Your task to perform on an android device: turn off location history Image 0: 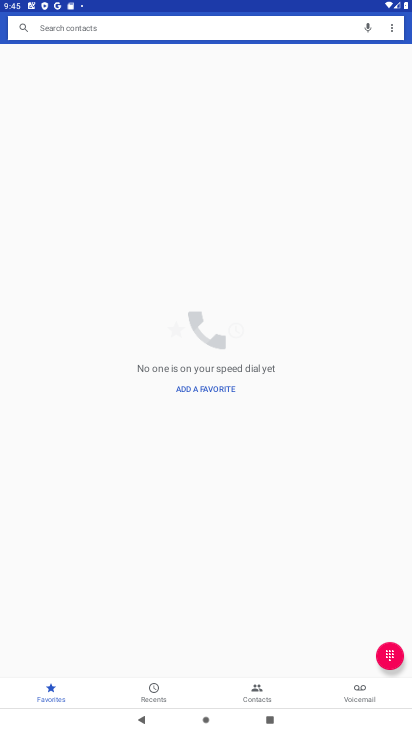
Step 0: press home button
Your task to perform on an android device: turn off location history Image 1: 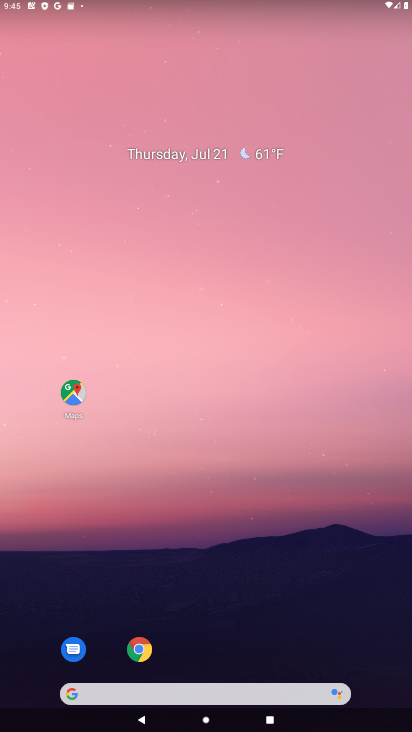
Step 1: drag from (191, 693) to (277, 16)
Your task to perform on an android device: turn off location history Image 2: 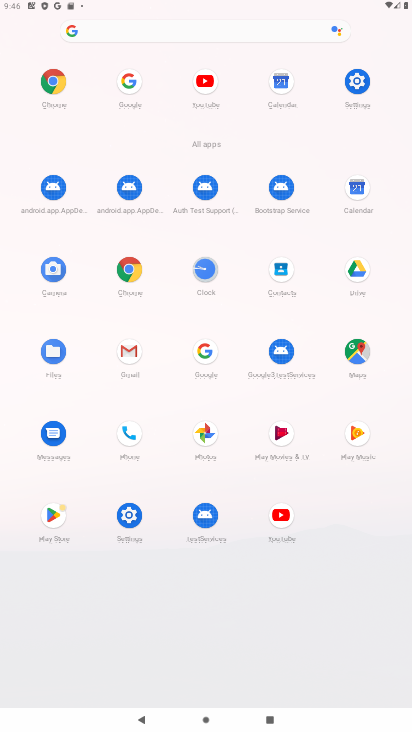
Step 2: click (357, 82)
Your task to perform on an android device: turn off location history Image 3: 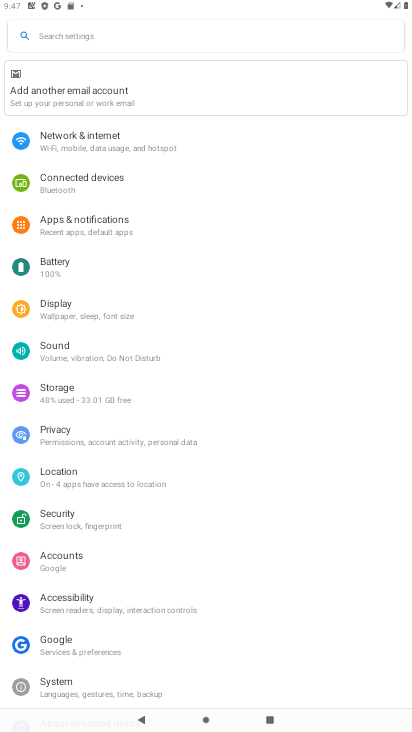
Step 3: click (60, 472)
Your task to perform on an android device: turn off location history Image 4: 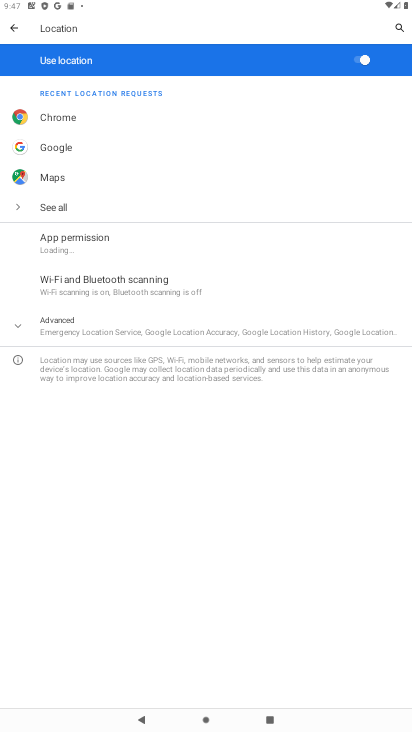
Step 4: click (118, 333)
Your task to perform on an android device: turn off location history Image 5: 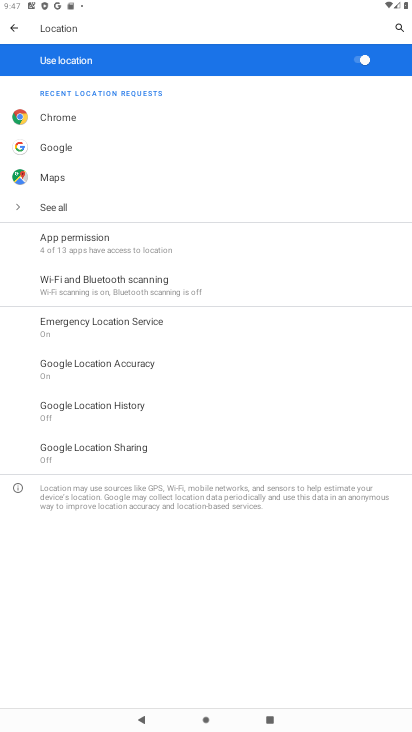
Step 5: task complete